Your task to perform on an android device: remove spam from my inbox in the gmail app Image 0: 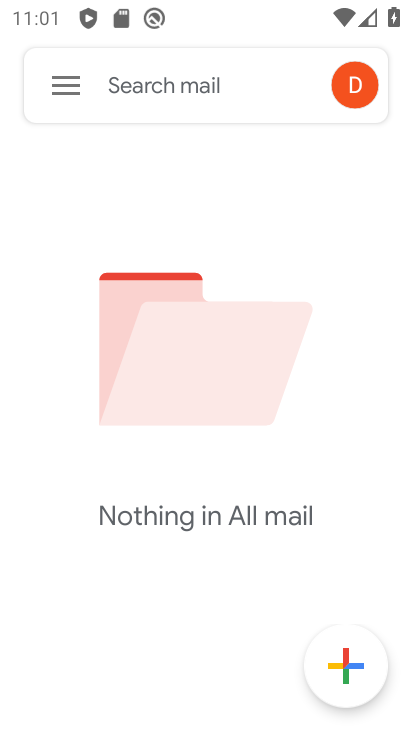
Step 0: click (57, 114)
Your task to perform on an android device: remove spam from my inbox in the gmail app Image 1: 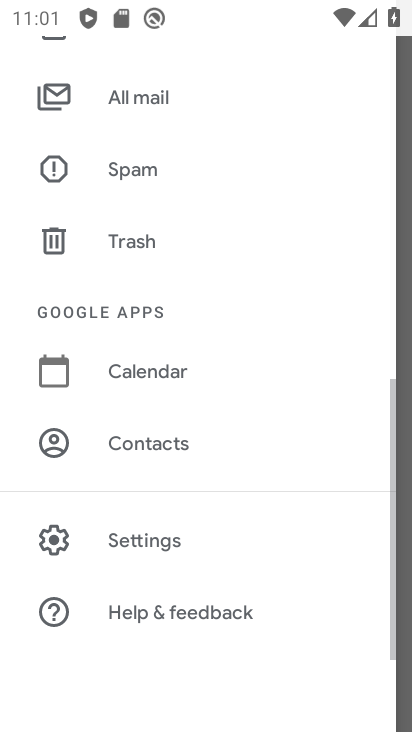
Step 1: click (173, 177)
Your task to perform on an android device: remove spam from my inbox in the gmail app Image 2: 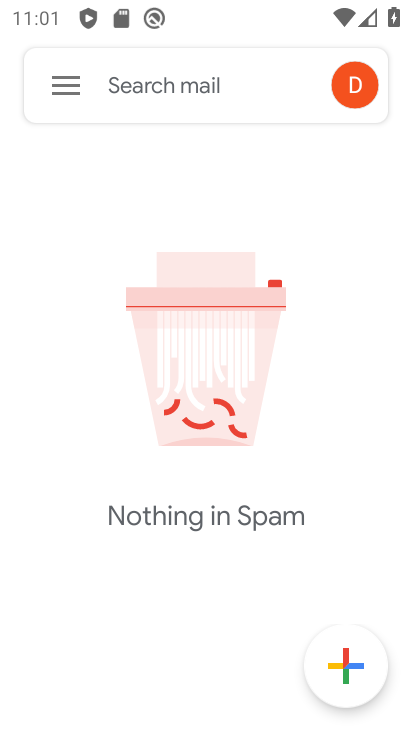
Step 2: task complete